Your task to perform on an android device: turn off smart reply in the gmail app Image 0: 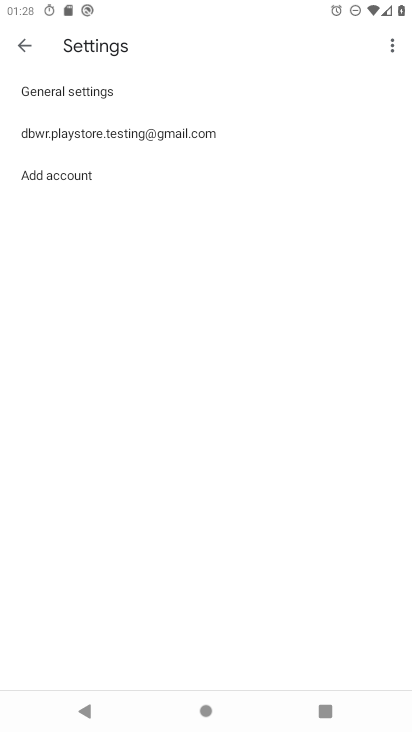
Step 0: press home button
Your task to perform on an android device: turn off smart reply in the gmail app Image 1: 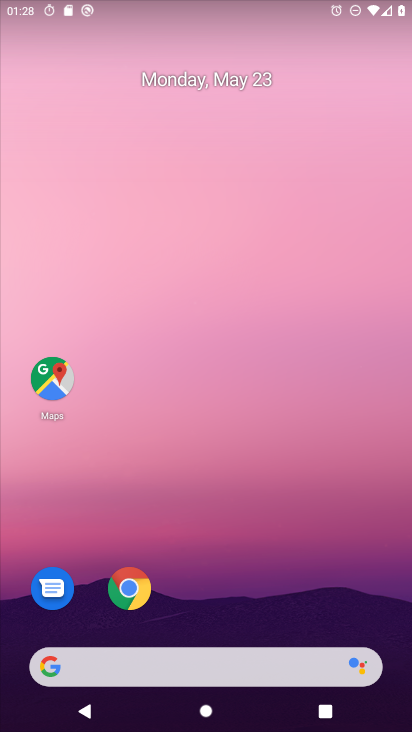
Step 1: drag from (259, 661) to (191, 100)
Your task to perform on an android device: turn off smart reply in the gmail app Image 2: 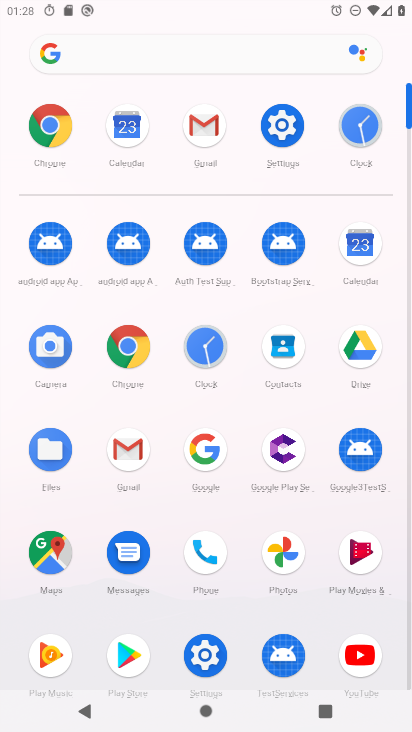
Step 2: click (192, 142)
Your task to perform on an android device: turn off smart reply in the gmail app Image 3: 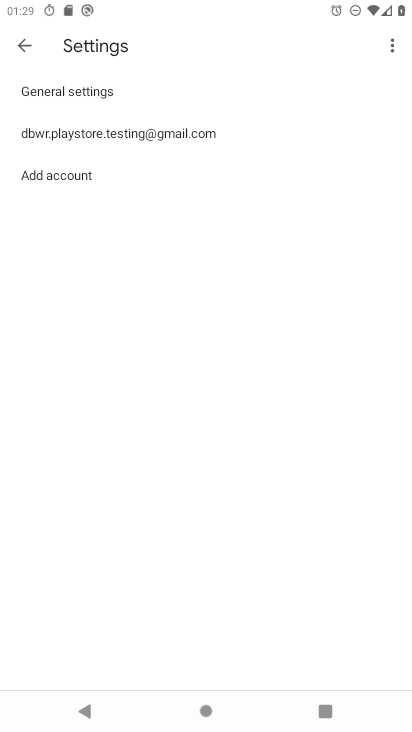
Step 3: click (164, 138)
Your task to perform on an android device: turn off smart reply in the gmail app Image 4: 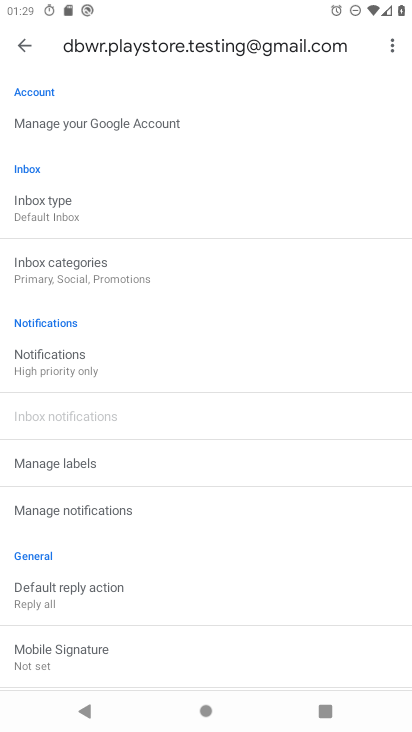
Step 4: drag from (192, 570) to (153, 182)
Your task to perform on an android device: turn off smart reply in the gmail app Image 5: 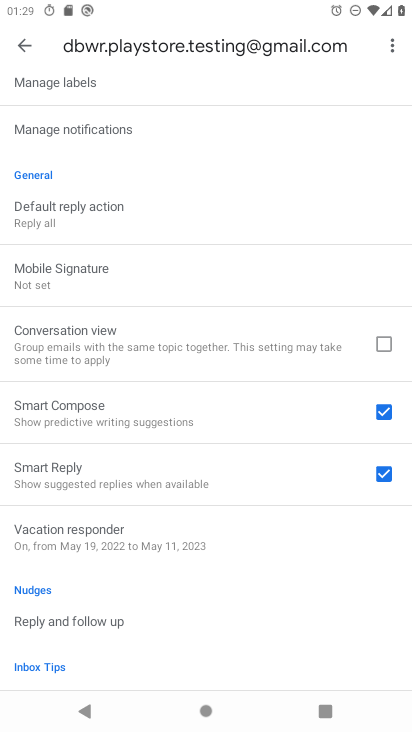
Step 5: drag from (159, 454) to (104, 203)
Your task to perform on an android device: turn off smart reply in the gmail app Image 6: 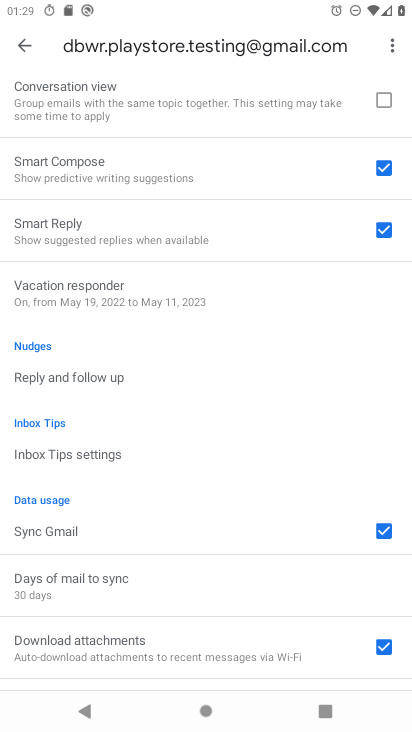
Step 6: click (381, 239)
Your task to perform on an android device: turn off smart reply in the gmail app Image 7: 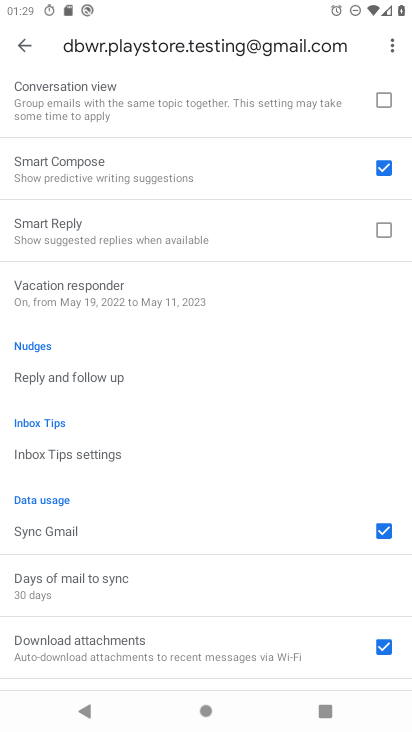
Step 7: task complete